Your task to perform on an android device: Open network settings Image 0: 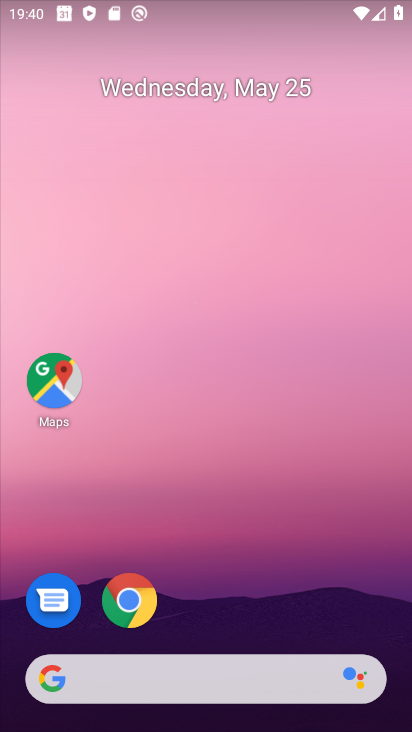
Step 0: drag from (355, 611) to (349, 233)
Your task to perform on an android device: Open network settings Image 1: 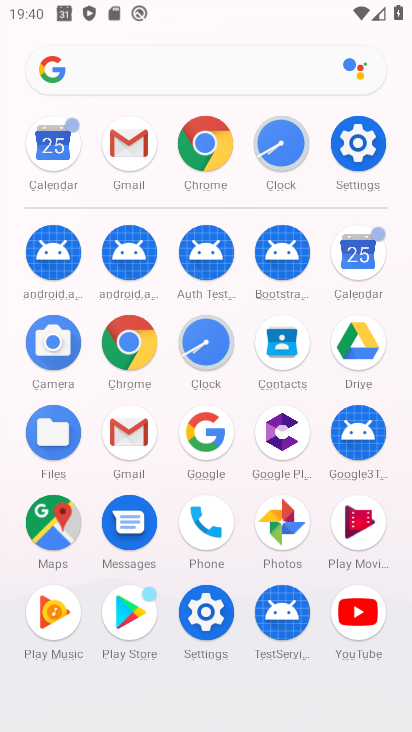
Step 1: click (353, 164)
Your task to perform on an android device: Open network settings Image 2: 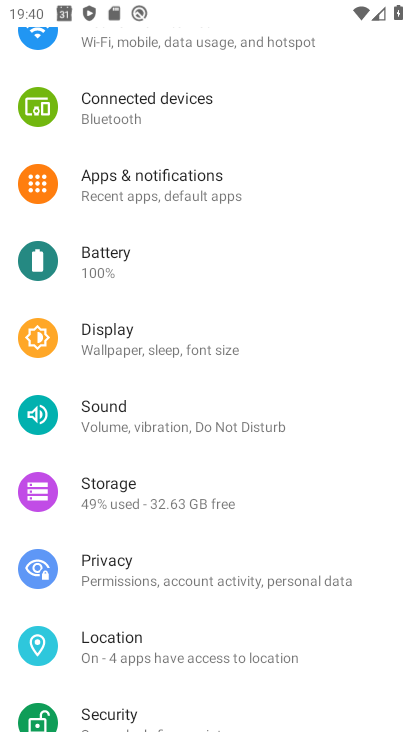
Step 2: drag from (173, 164) to (178, 475)
Your task to perform on an android device: Open network settings Image 3: 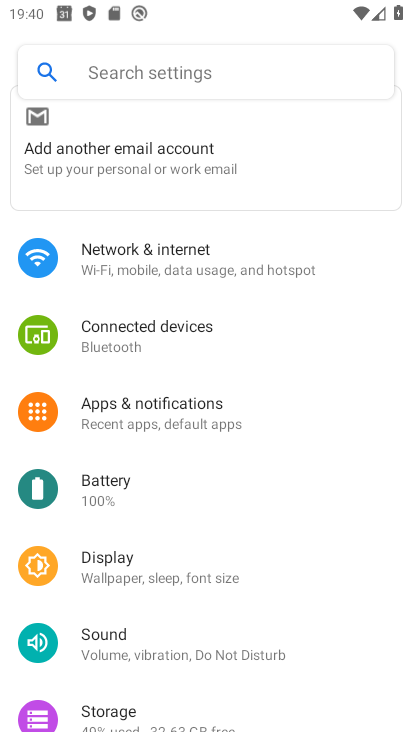
Step 3: click (177, 268)
Your task to perform on an android device: Open network settings Image 4: 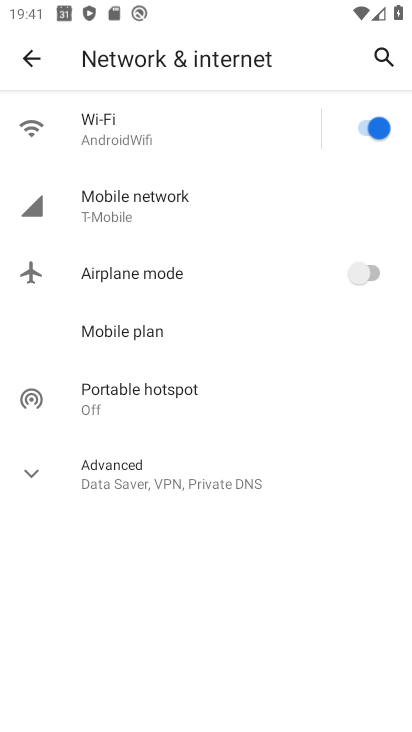
Step 4: task complete